Your task to perform on an android device: turn on priority inbox in the gmail app Image 0: 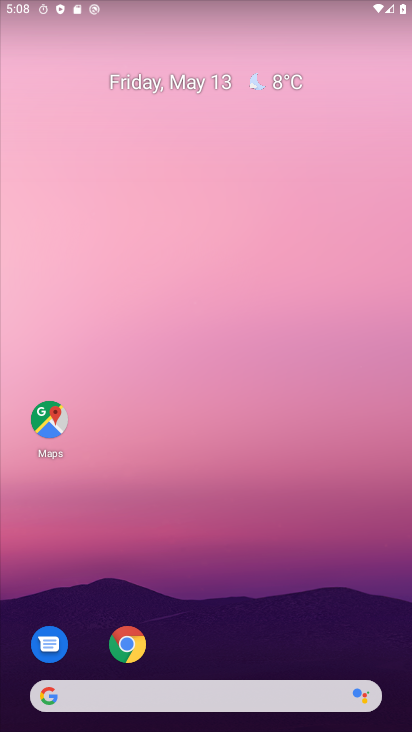
Step 0: drag from (256, 601) to (314, 83)
Your task to perform on an android device: turn on priority inbox in the gmail app Image 1: 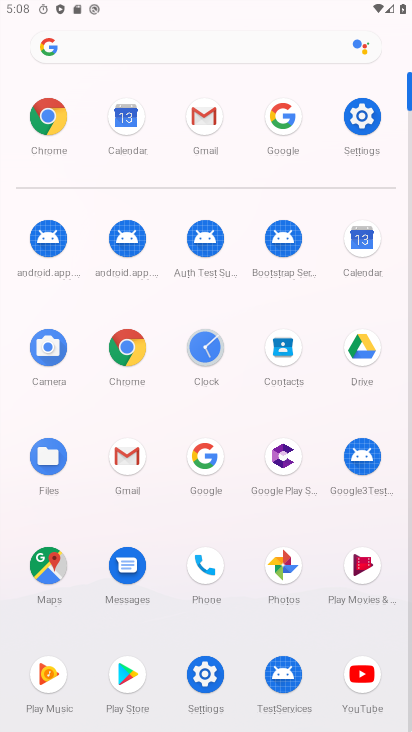
Step 1: click (193, 126)
Your task to perform on an android device: turn on priority inbox in the gmail app Image 2: 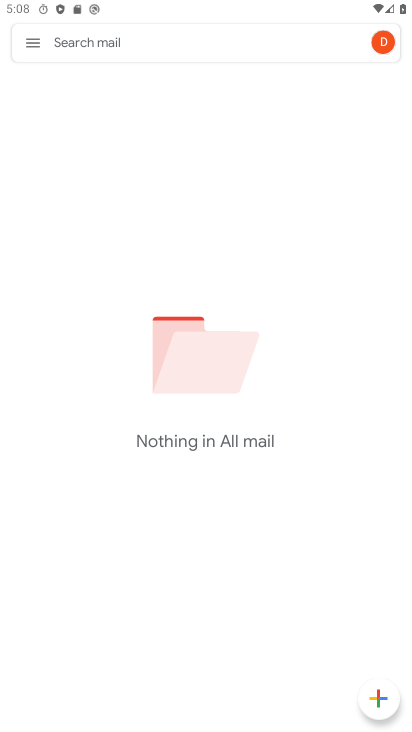
Step 2: click (33, 44)
Your task to perform on an android device: turn on priority inbox in the gmail app Image 3: 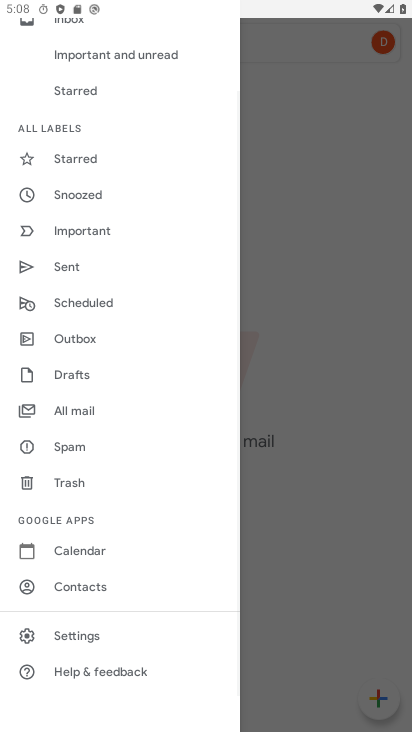
Step 3: click (95, 618)
Your task to perform on an android device: turn on priority inbox in the gmail app Image 4: 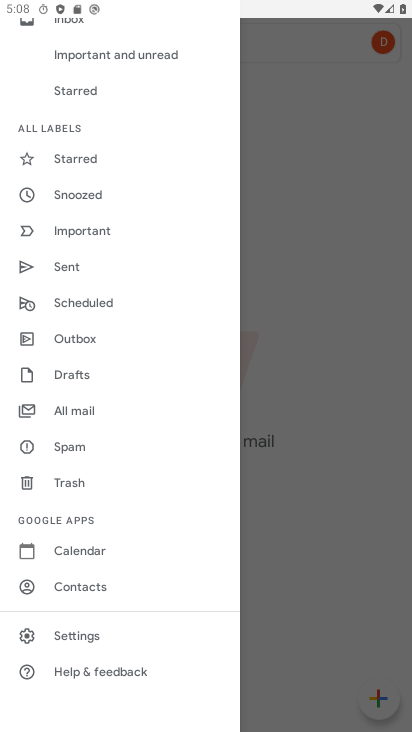
Step 4: click (97, 634)
Your task to perform on an android device: turn on priority inbox in the gmail app Image 5: 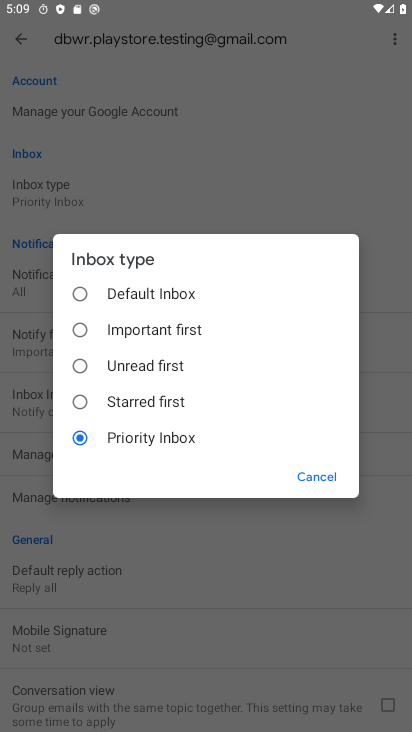
Step 5: task complete